Your task to perform on an android device: Toggle the flashlight Image 0: 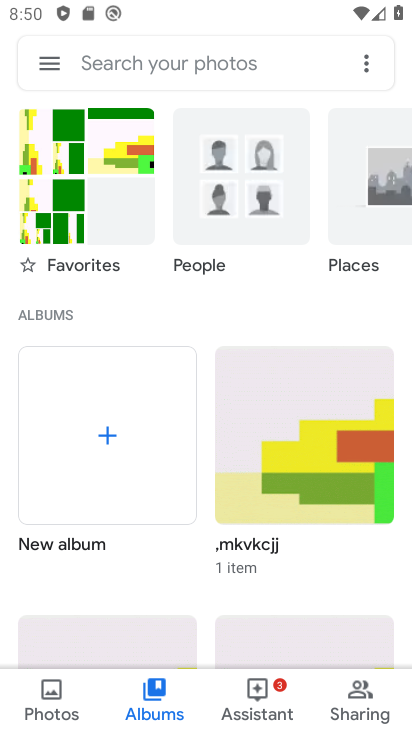
Step 0: press home button
Your task to perform on an android device: Toggle the flashlight Image 1: 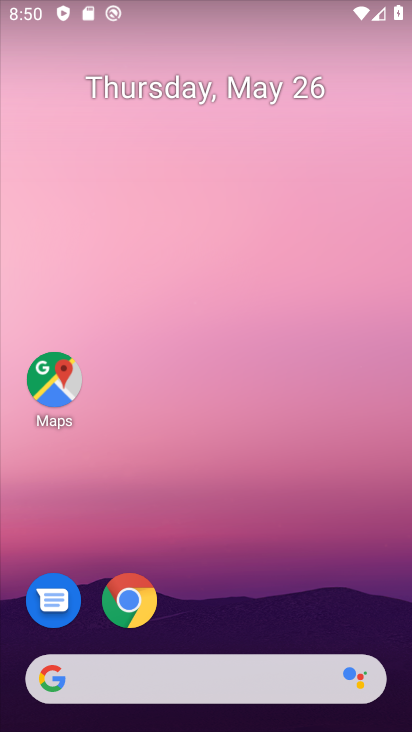
Step 1: drag from (197, 631) to (231, 162)
Your task to perform on an android device: Toggle the flashlight Image 2: 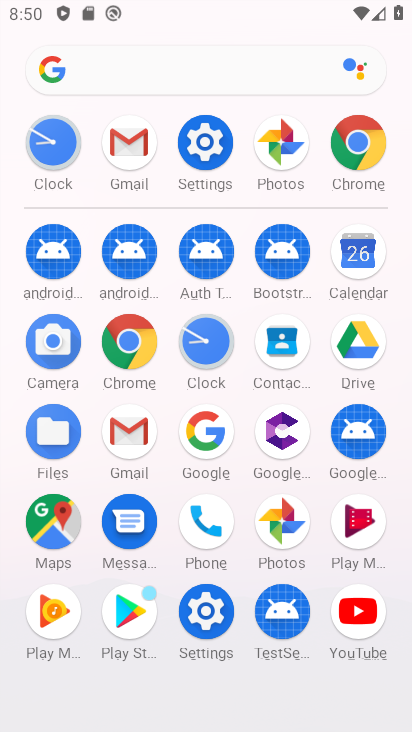
Step 2: click (200, 123)
Your task to perform on an android device: Toggle the flashlight Image 3: 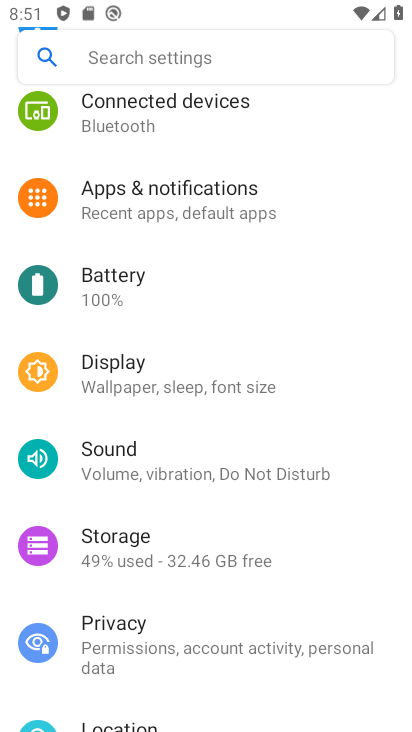
Step 3: task complete